Your task to perform on an android device: When is my next appointment? Image 0: 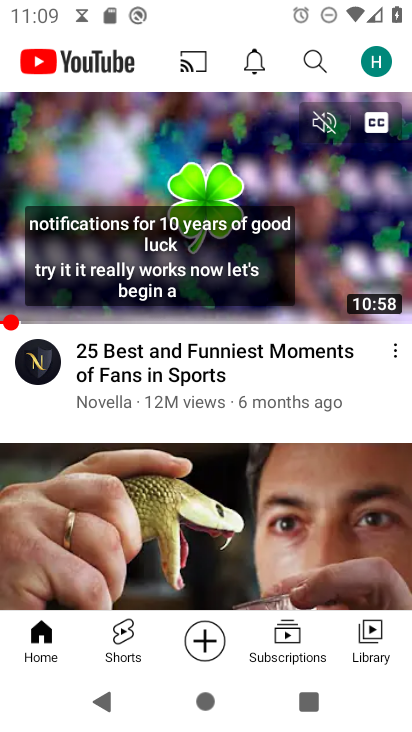
Step 0: press home button
Your task to perform on an android device: When is my next appointment? Image 1: 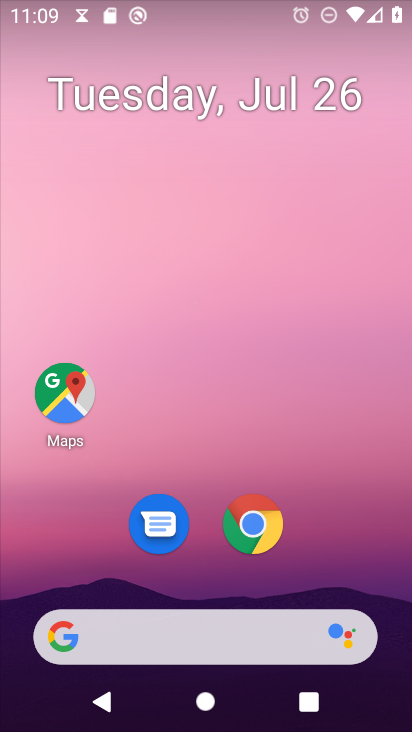
Step 1: drag from (162, 619) to (279, 72)
Your task to perform on an android device: When is my next appointment? Image 2: 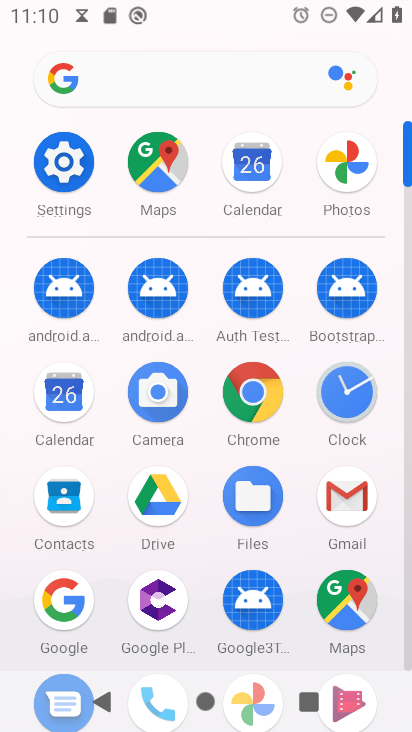
Step 2: click (59, 385)
Your task to perform on an android device: When is my next appointment? Image 3: 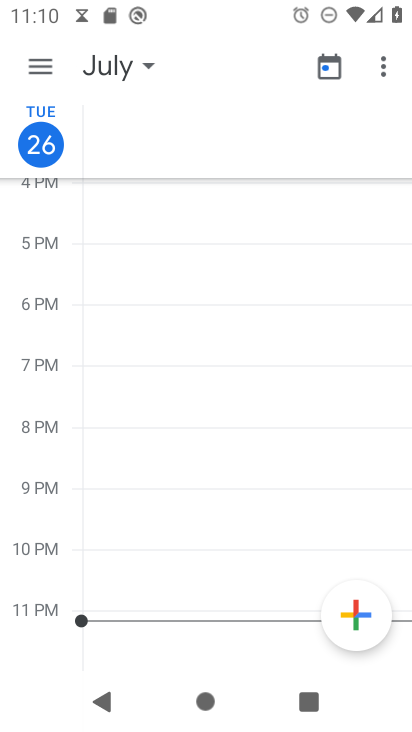
Step 3: click (42, 60)
Your task to perform on an android device: When is my next appointment? Image 4: 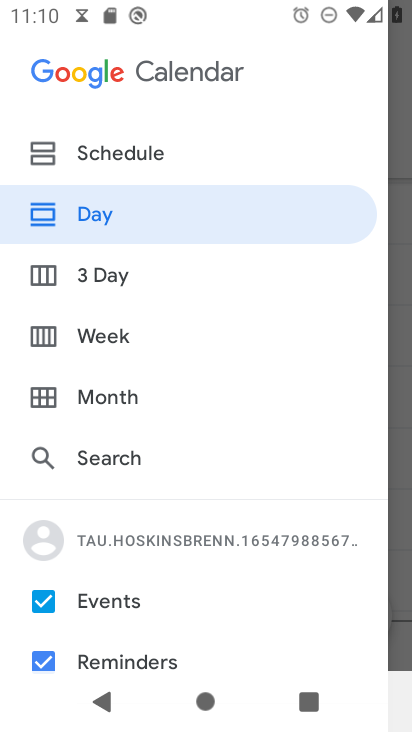
Step 4: click (110, 342)
Your task to perform on an android device: When is my next appointment? Image 5: 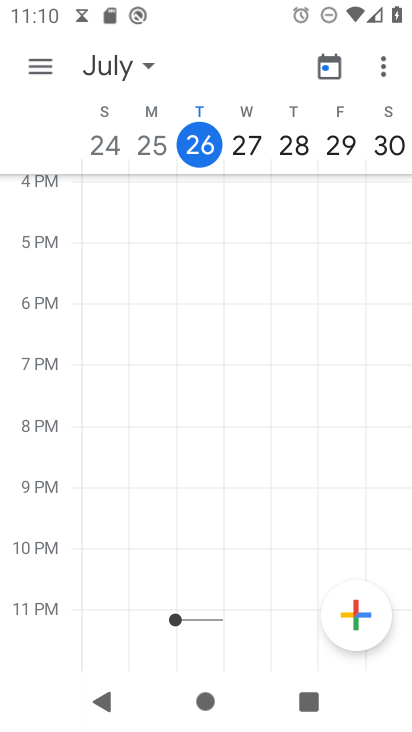
Step 5: click (39, 71)
Your task to perform on an android device: When is my next appointment? Image 6: 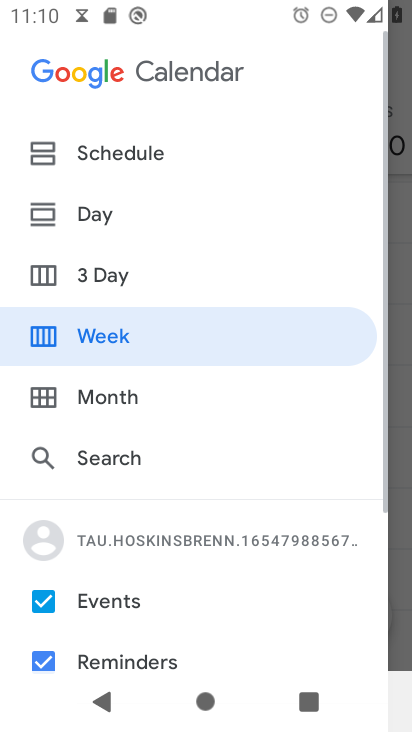
Step 6: click (98, 150)
Your task to perform on an android device: When is my next appointment? Image 7: 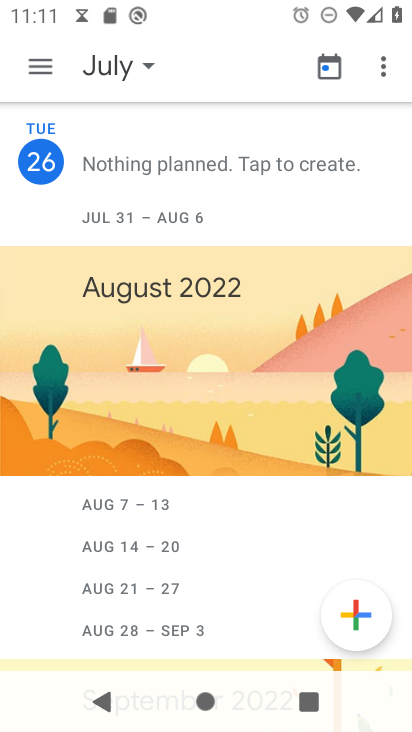
Step 7: task complete